Your task to perform on an android device: Open location settings Image 0: 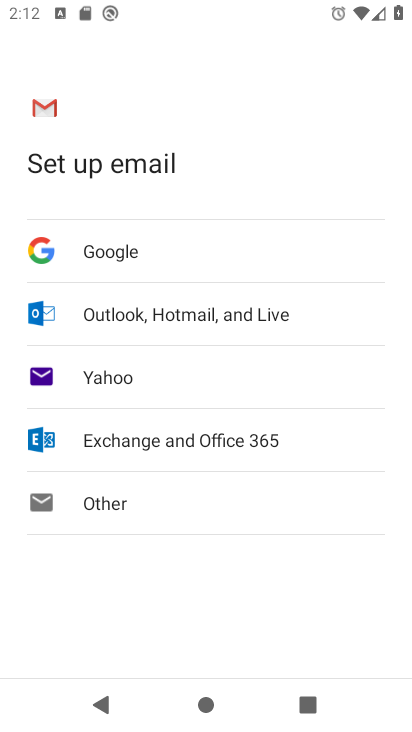
Step 0: press home button
Your task to perform on an android device: Open location settings Image 1: 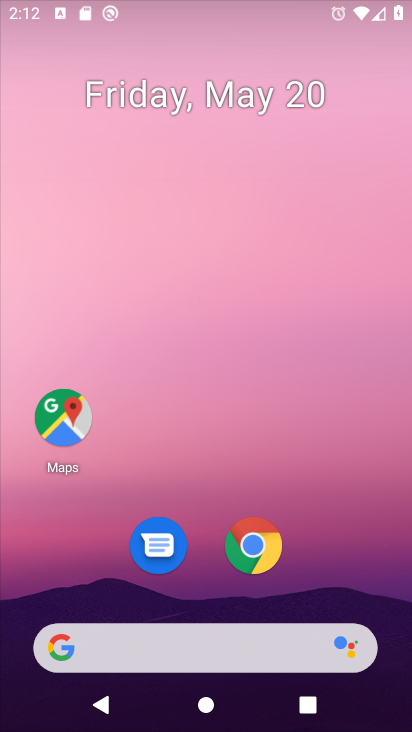
Step 1: drag from (305, 660) to (255, 36)
Your task to perform on an android device: Open location settings Image 2: 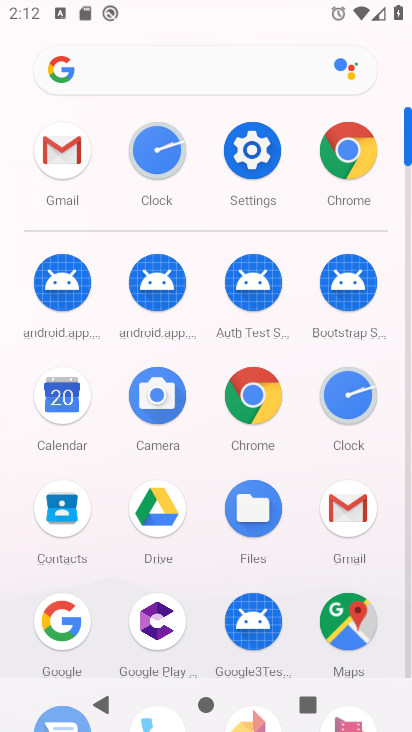
Step 2: click (244, 137)
Your task to perform on an android device: Open location settings Image 3: 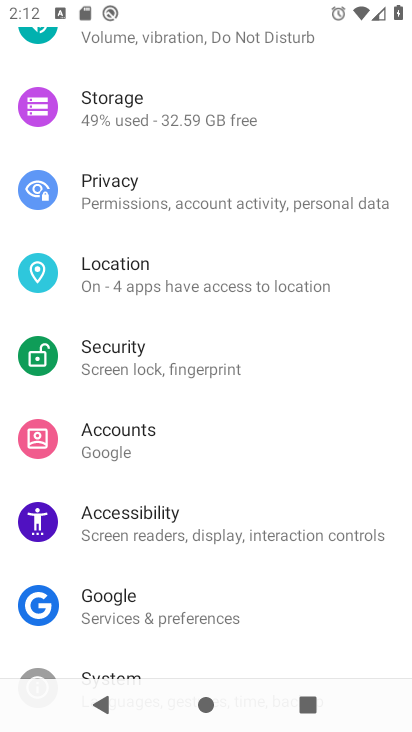
Step 3: click (257, 289)
Your task to perform on an android device: Open location settings Image 4: 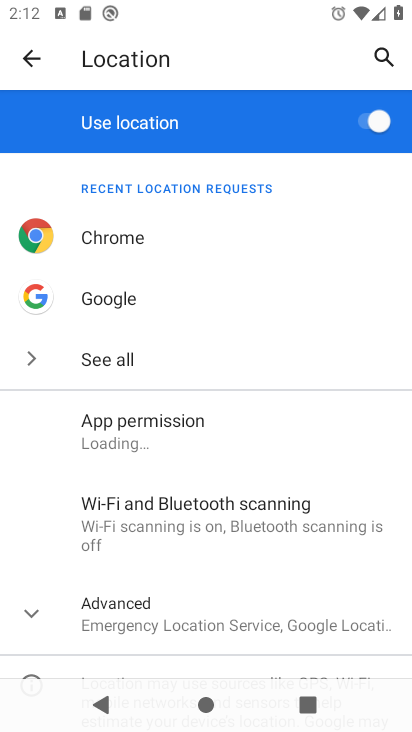
Step 4: task complete